Your task to perform on an android device: Toggle the flashlight Image 0: 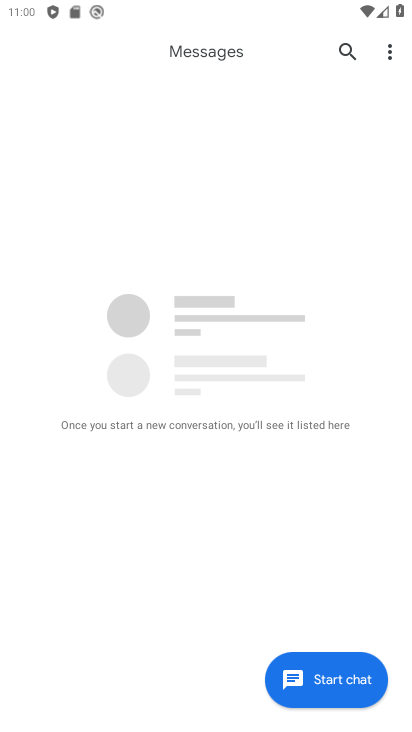
Step 0: press home button
Your task to perform on an android device: Toggle the flashlight Image 1: 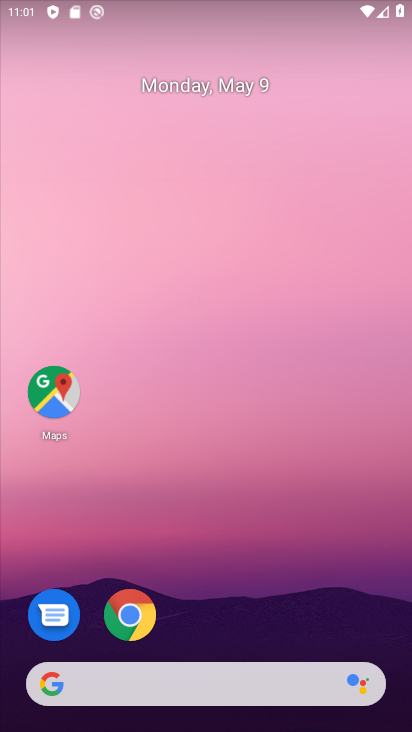
Step 1: drag from (212, 726) to (215, 151)
Your task to perform on an android device: Toggle the flashlight Image 2: 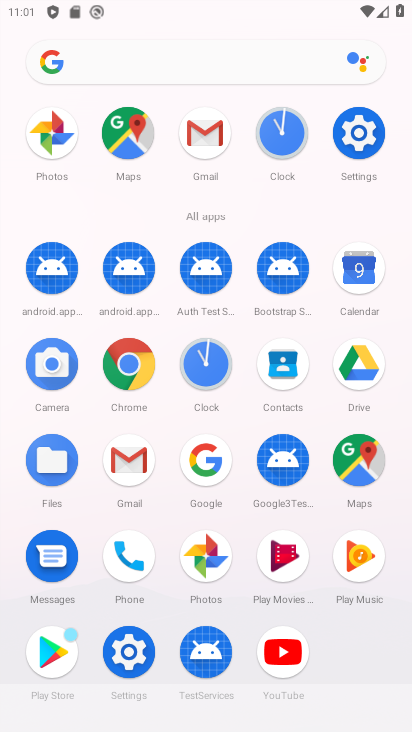
Step 2: click (363, 137)
Your task to perform on an android device: Toggle the flashlight Image 3: 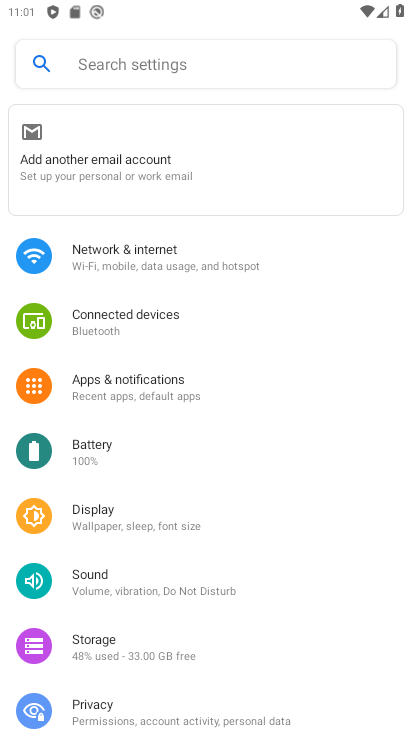
Step 3: task complete